Your task to perform on an android device: View the shopping cart on bestbuy.com. Add "macbook pro" to the cart on bestbuy.com, then select checkout. Image 0: 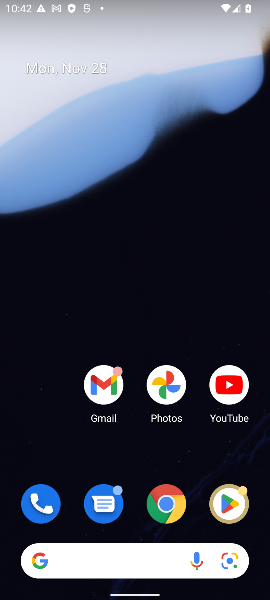
Step 0: click (168, 497)
Your task to perform on an android device: View the shopping cart on bestbuy.com. Add "macbook pro" to the cart on bestbuy.com, then select checkout. Image 1: 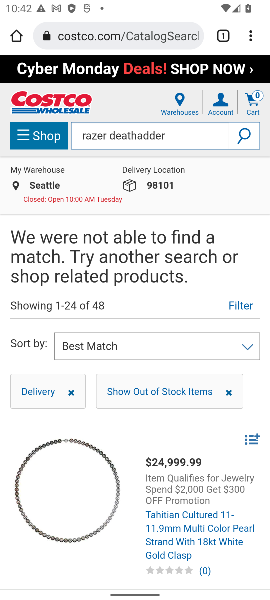
Step 1: click (103, 36)
Your task to perform on an android device: View the shopping cart on bestbuy.com. Add "macbook pro" to the cart on bestbuy.com, then select checkout. Image 2: 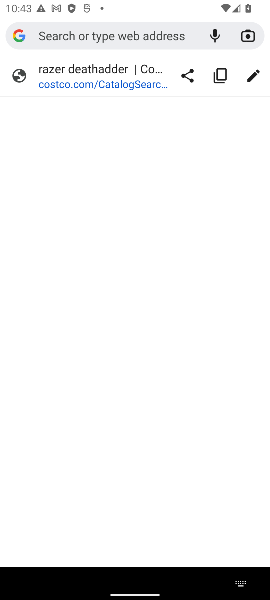
Step 2: type "bestbuy.com"
Your task to perform on an android device: View the shopping cart on bestbuy.com. Add "macbook pro" to the cart on bestbuy.com, then select checkout. Image 3: 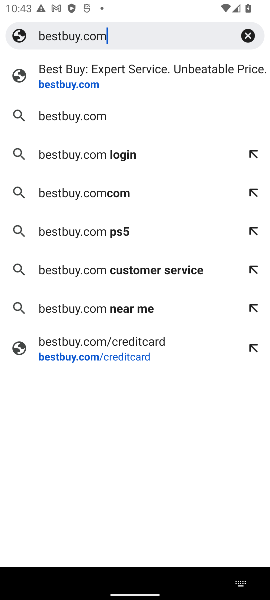
Step 3: click (63, 86)
Your task to perform on an android device: View the shopping cart on bestbuy.com. Add "macbook pro" to the cart on bestbuy.com, then select checkout. Image 4: 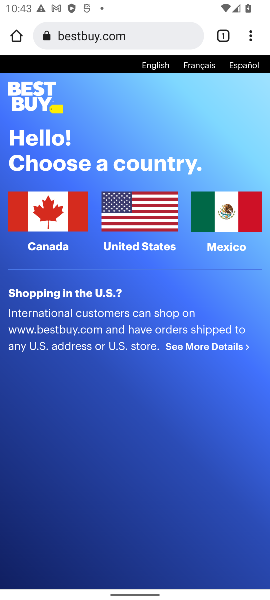
Step 4: click (130, 222)
Your task to perform on an android device: View the shopping cart on bestbuy.com. Add "macbook pro" to the cart on bestbuy.com, then select checkout. Image 5: 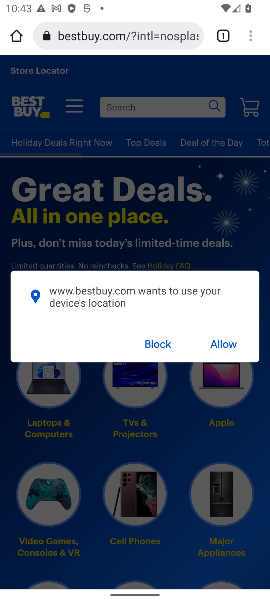
Step 5: click (155, 344)
Your task to perform on an android device: View the shopping cart on bestbuy.com. Add "macbook pro" to the cart on bestbuy.com, then select checkout. Image 6: 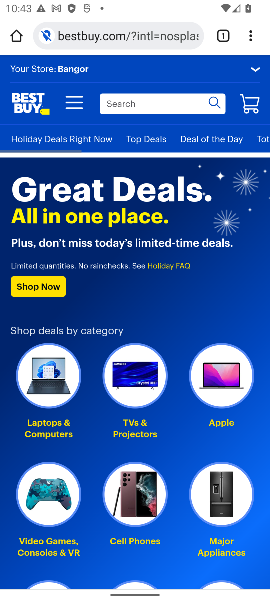
Step 6: click (250, 101)
Your task to perform on an android device: View the shopping cart on bestbuy.com. Add "macbook pro" to the cart on bestbuy.com, then select checkout. Image 7: 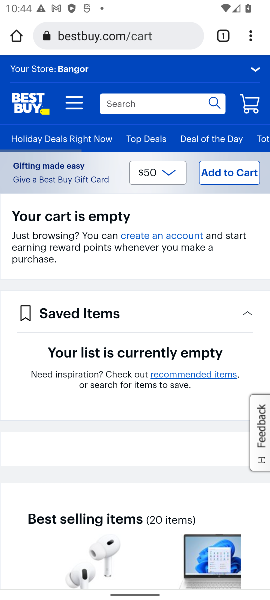
Step 7: click (132, 105)
Your task to perform on an android device: View the shopping cart on bestbuy.com. Add "macbook pro" to the cart on bestbuy.com, then select checkout. Image 8: 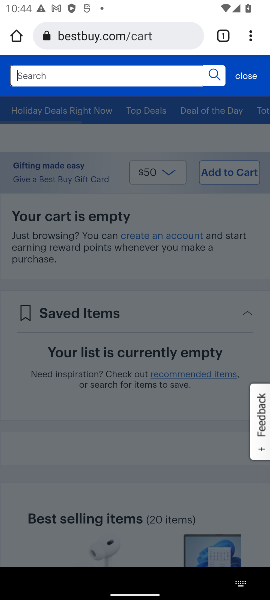
Step 8: type "macbook pro"
Your task to perform on an android device: View the shopping cart on bestbuy.com. Add "macbook pro" to the cart on bestbuy.com, then select checkout. Image 9: 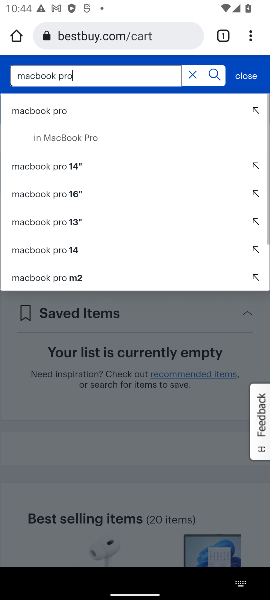
Step 9: click (41, 112)
Your task to perform on an android device: View the shopping cart on bestbuy.com. Add "macbook pro" to the cart on bestbuy.com, then select checkout. Image 10: 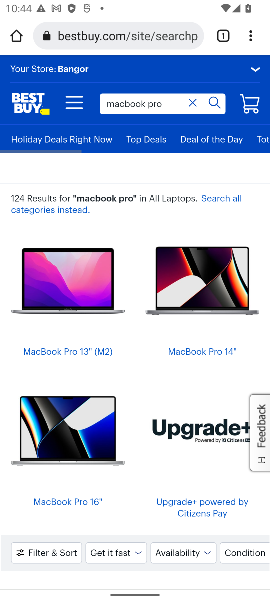
Step 10: drag from (140, 475) to (145, 245)
Your task to perform on an android device: View the shopping cart on bestbuy.com. Add "macbook pro" to the cart on bestbuy.com, then select checkout. Image 11: 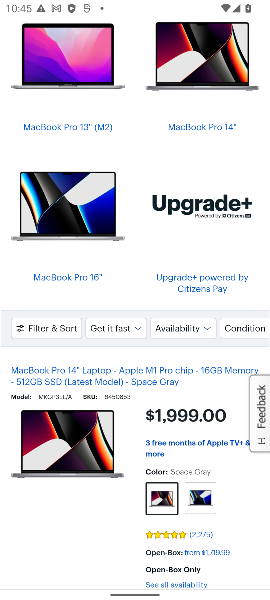
Step 11: click (108, 450)
Your task to perform on an android device: View the shopping cart on bestbuy.com. Add "macbook pro" to the cart on bestbuy.com, then select checkout. Image 12: 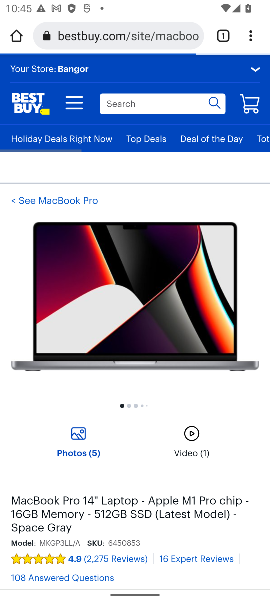
Step 12: drag from (222, 469) to (240, 277)
Your task to perform on an android device: View the shopping cart on bestbuy.com. Add "macbook pro" to the cart on bestbuy.com, then select checkout. Image 13: 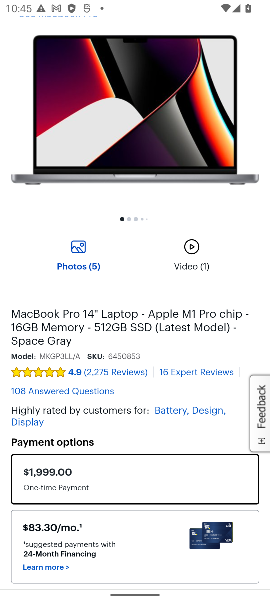
Step 13: drag from (221, 434) to (215, 338)
Your task to perform on an android device: View the shopping cart on bestbuy.com. Add "macbook pro" to the cart on bestbuy.com, then select checkout. Image 14: 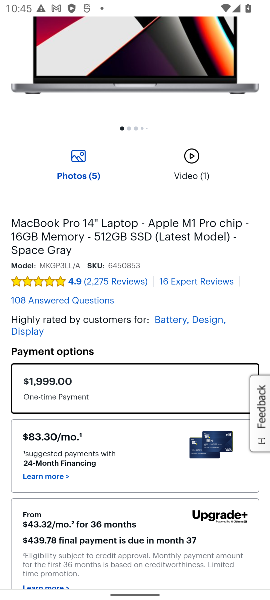
Step 14: drag from (231, 462) to (217, 298)
Your task to perform on an android device: View the shopping cart on bestbuy.com. Add "macbook pro" to the cart on bestbuy.com, then select checkout. Image 15: 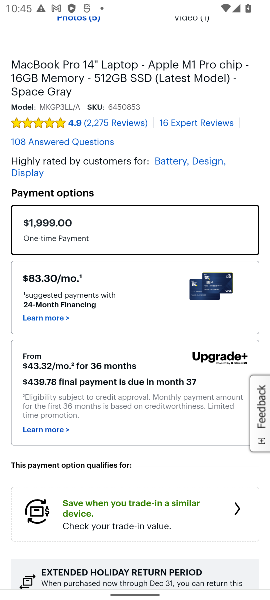
Step 15: drag from (203, 454) to (184, 271)
Your task to perform on an android device: View the shopping cart on bestbuy.com. Add "macbook pro" to the cart on bestbuy.com, then select checkout. Image 16: 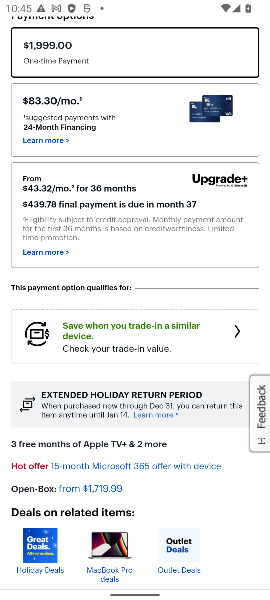
Step 16: drag from (174, 453) to (174, 199)
Your task to perform on an android device: View the shopping cart on bestbuy.com. Add "macbook pro" to the cart on bestbuy.com, then select checkout. Image 17: 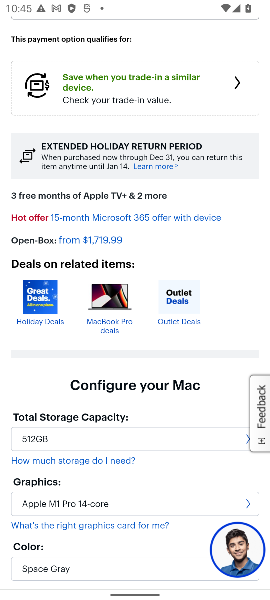
Step 17: drag from (181, 383) to (184, 240)
Your task to perform on an android device: View the shopping cart on bestbuy.com. Add "macbook pro" to the cart on bestbuy.com, then select checkout. Image 18: 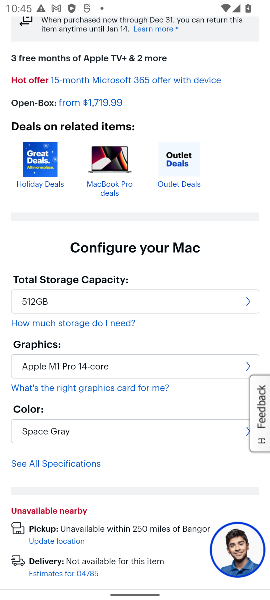
Step 18: drag from (169, 366) to (166, 262)
Your task to perform on an android device: View the shopping cart on bestbuy.com. Add "macbook pro" to the cart on bestbuy.com, then select checkout. Image 19: 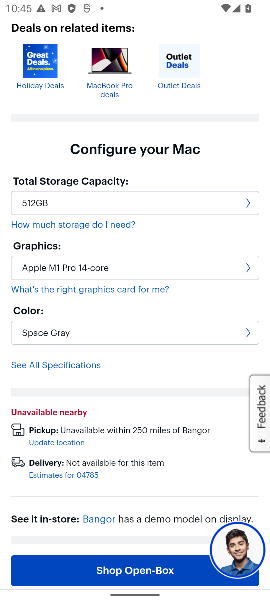
Step 19: drag from (139, 421) to (141, 252)
Your task to perform on an android device: View the shopping cart on bestbuy.com. Add "macbook pro" to the cart on bestbuy.com, then select checkout. Image 20: 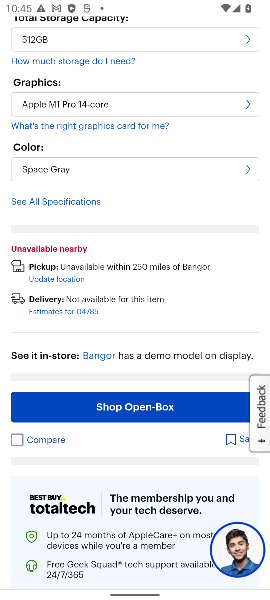
Step 20: drag from (133, 447) to (140, 359)
Your task to perform on an android device: View the shopping cart on bestbuy.com. Add "macbook pro" to the cart on bestbuy.com, then select checkout. Image 21: 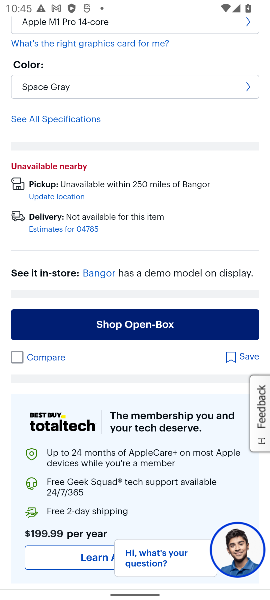
Step 21: press back button
Your task to perform on an android device: View the shopping cart on bestbuy.com. Add "macbook pro" to the cart on bestbuy.com, then select checkout. Image 22: 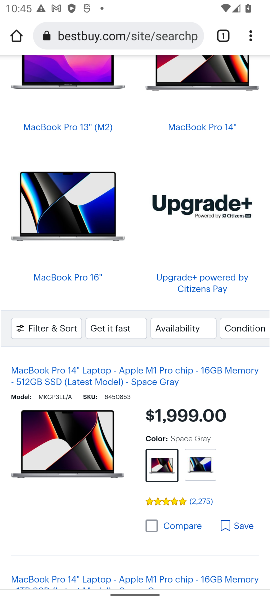
Step 22: drag from (239, 458) to (240, 287)
Your task to perform on an android device: View the shopping cart on bestbuy.com. Add "macbook pro" to the cart on bestbuy.com, then select checkout. Image 23: 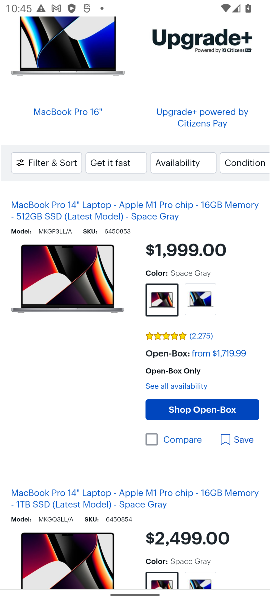
Step 23: drag from (237, 504) to (239, 323)
Your task to perform on an android device: View the shopping cart on bestbuy.com. Add "macbook pro" to the cart on bestbuy.com, then select checkout. Image 24: 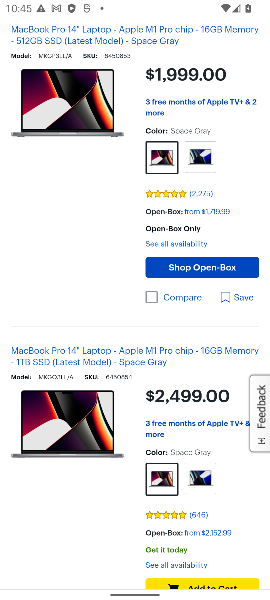
Step 24: drag from (254, 544) to (250, 436)
Your task to perform on an android device: View the shopping cart on bestbuy.com. Add "macbook pro" to the cart on bestbuy.com, then select checkout. Image 25: 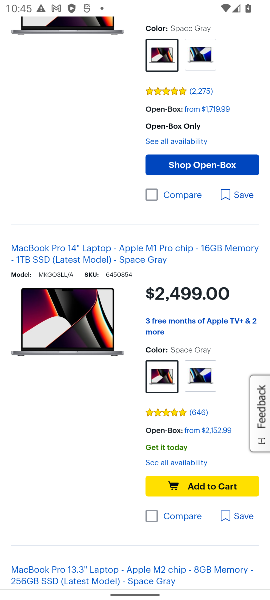
Step 25: click (189, 487)
Your task to perform on an android device: View the shopping cart on bestbuy.com. Add "macbook pro" to the cart on bestbuy.com, then select checkout. Image 26: 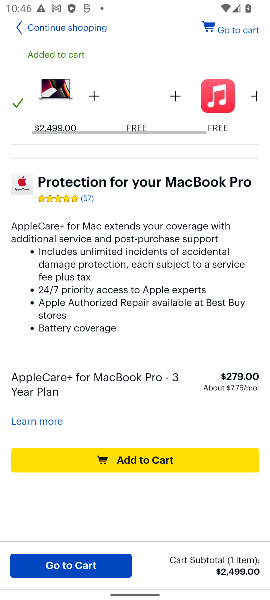
Step 26: click (232, 31)
Your task to perform on an android device: View the shopping cart on bestbuy.com. Add "macbook pro" to the cart on bestbuy.com, then select checkout. Image 27: 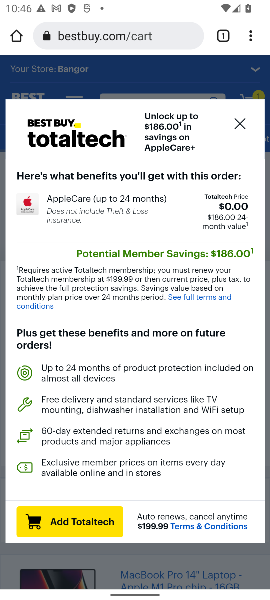
Step 27: click (237, 122)
Your task to perform on an android device: View the shopping cart on bestbuy.com. Add "macbook pro" to the cart on bestbuy.com, then select checkout. Image 28: 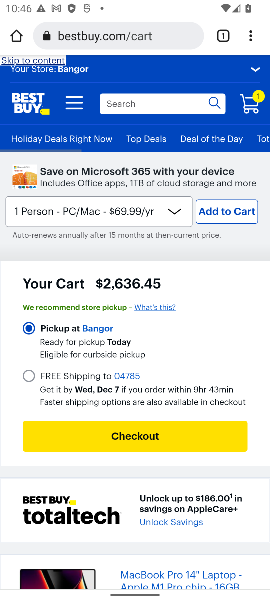
Step 28: click (94, 438)
Your task to perform on an android device: View the shopping cart on bestbuy.com. Add "macbook pro" to the cart on bestbuy.com, then select checkout. Image 29: 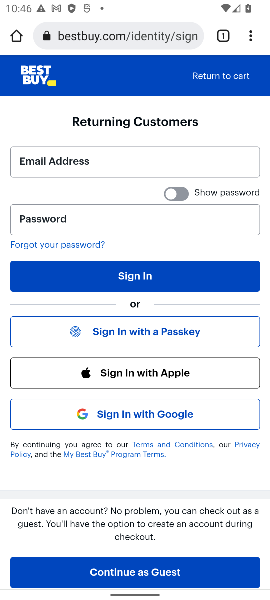
Step 29: task complete